Your task to perform on an android device: Open Chrome and go to settings Image 0: 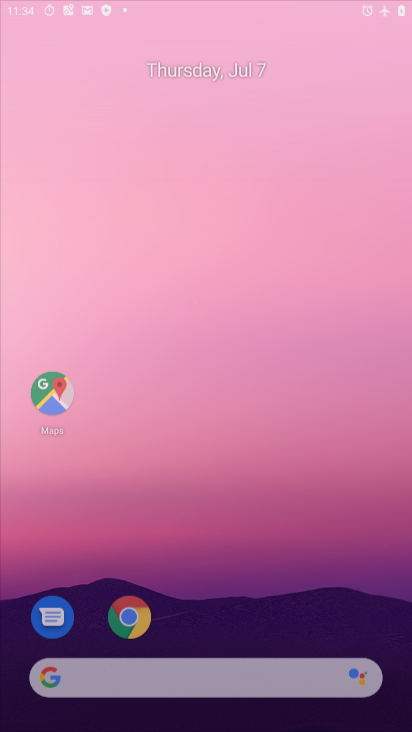
Step 0: drag from (205, 635) to (168, 233)
Your task to perform on an android device: Open Chrome and go to settings Image 1: 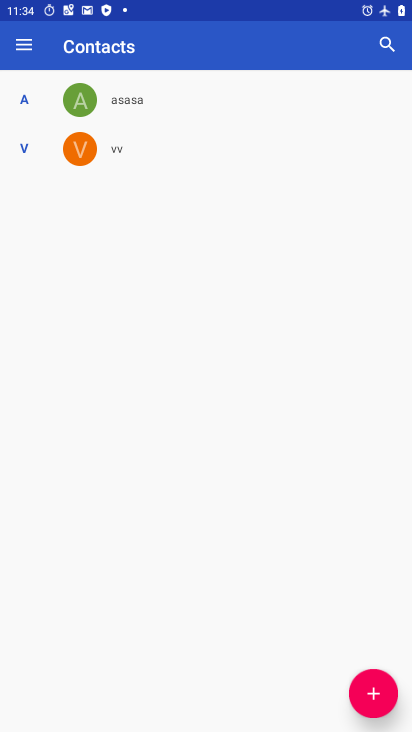
Step 1: press home button
Your task to perform on an android device: Open Chrome and go to settings Image 2: 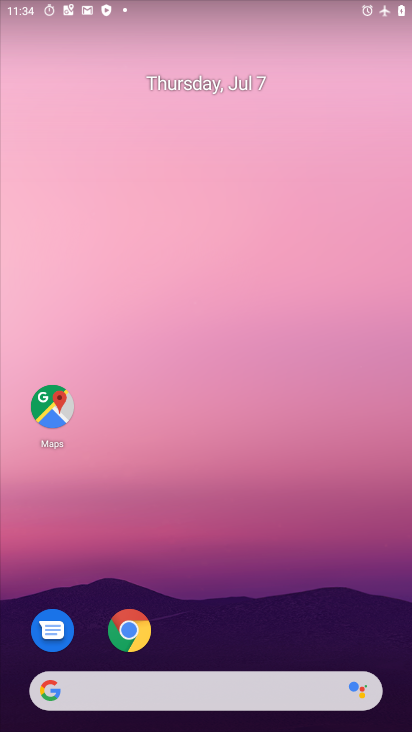
Step 2: click (139, 633)
Your task to perform on an android device: Open Chrome and go to settings Image 3: 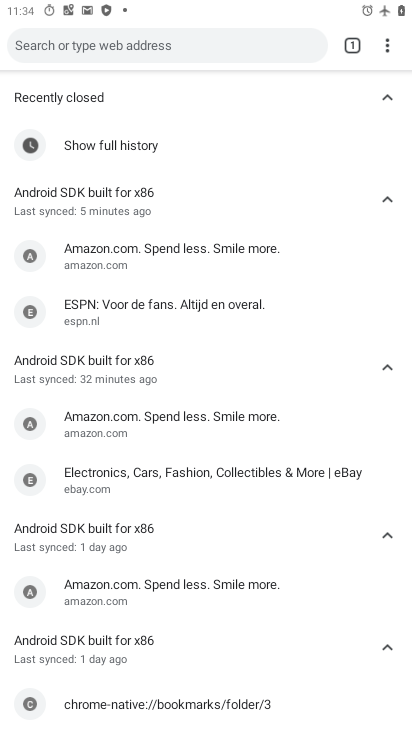
Step 3: click (385, 50)
Your task to perform on an android device: Open Chrome and go to settings Image 4: 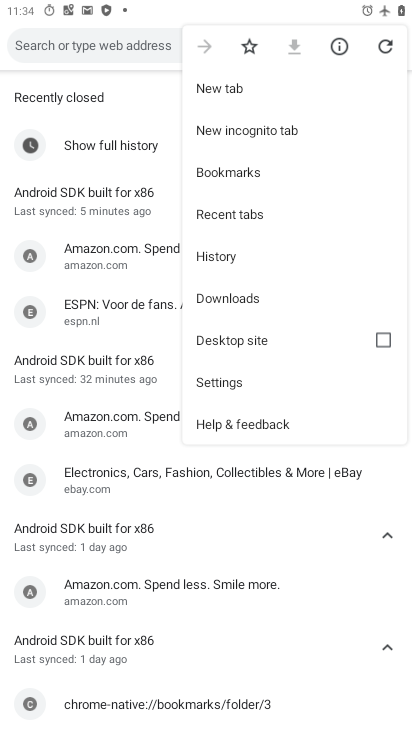
Step 4: click (199, 390)
Your task to perform on an android device: Open Chrome and go to settings Image 5: 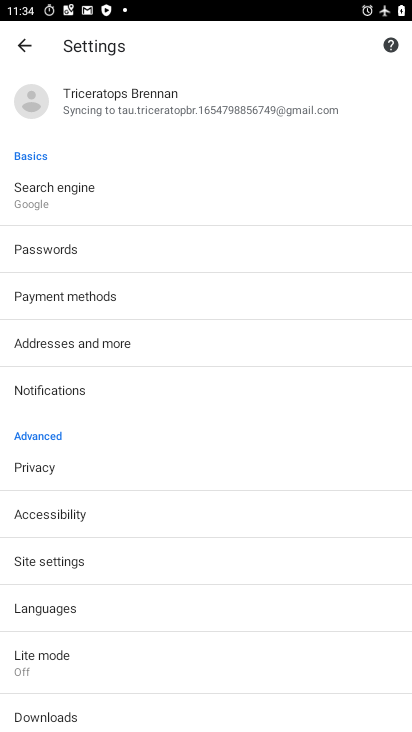
Step 5: task complete